Your task to perform on an android device: Search for Mexican restaurants on Maps Image 0: 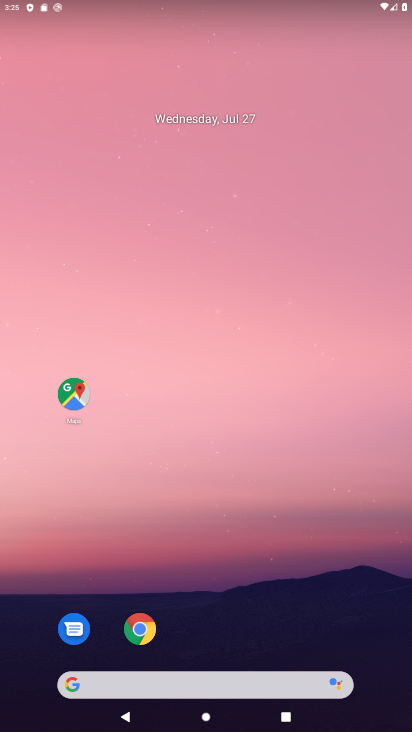
Step 0: press home button
Your task to perform on an android device: Search for Mexican restaurants on Maps Image 1: 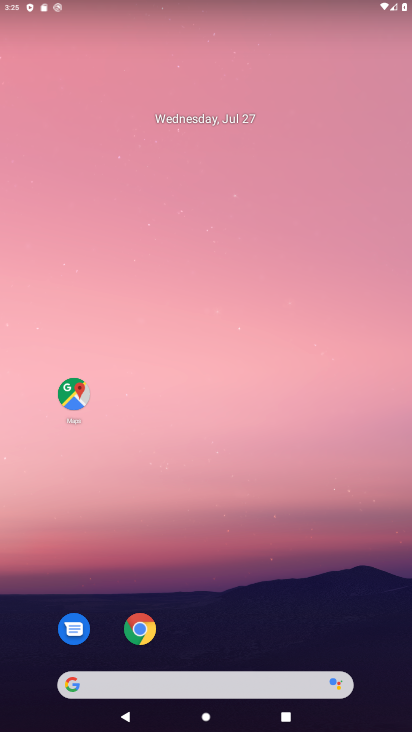
Step 1: drag from (305, 580) to (265, 145)
Your task to perform on an android device: Search for Mexican restaurants on Maps Image 2: 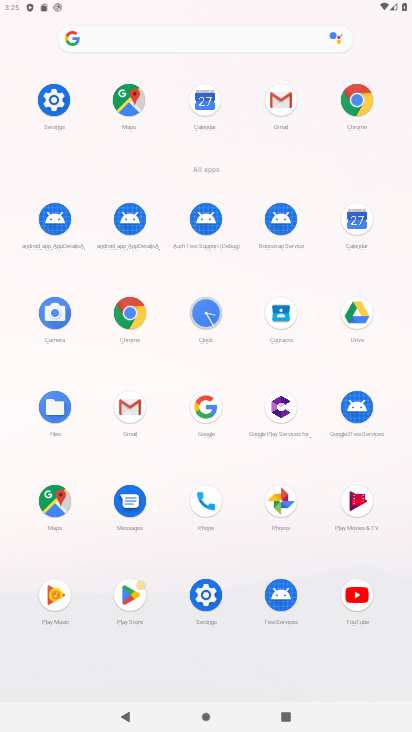
Step 2: click (56, 494)
Your task to perform on an android device: Search for Mexican restaurants on Maps Image 3: 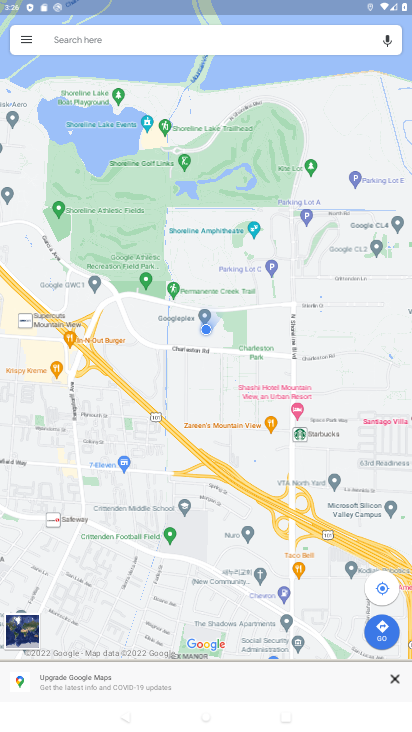
Step 3: click (127, 44)
Your task to perform on an android device: Search for Mexican restaurants on Maps Image 4: 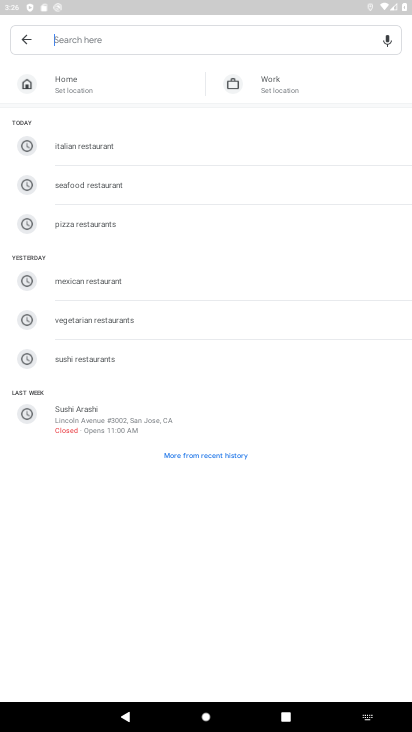
Step 4: type "Mexican restaurants"
Your task to perform on an android device: Search for Mexican restaurants on Maps Image 5: 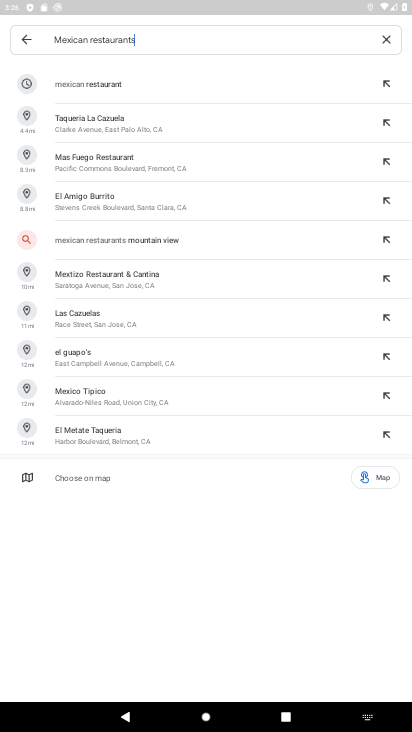
Step 5: press enter
Your task to perform on an android device: Search for Mexican restaurants on Maps Image 6: 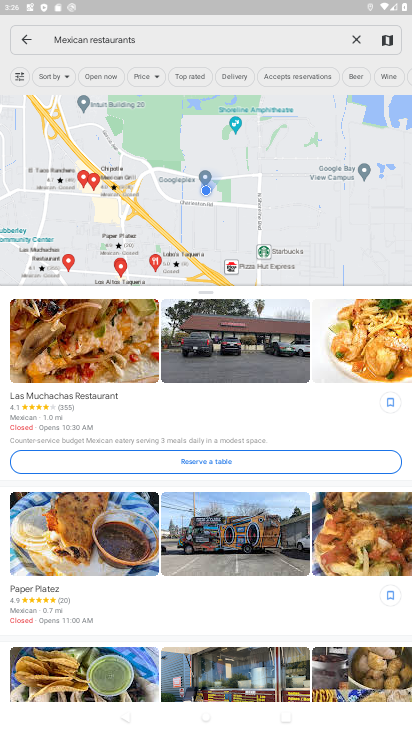
Step 6: task complete